Your task to perform on an android device: toggle notifications settings in the gmail app Image 0: 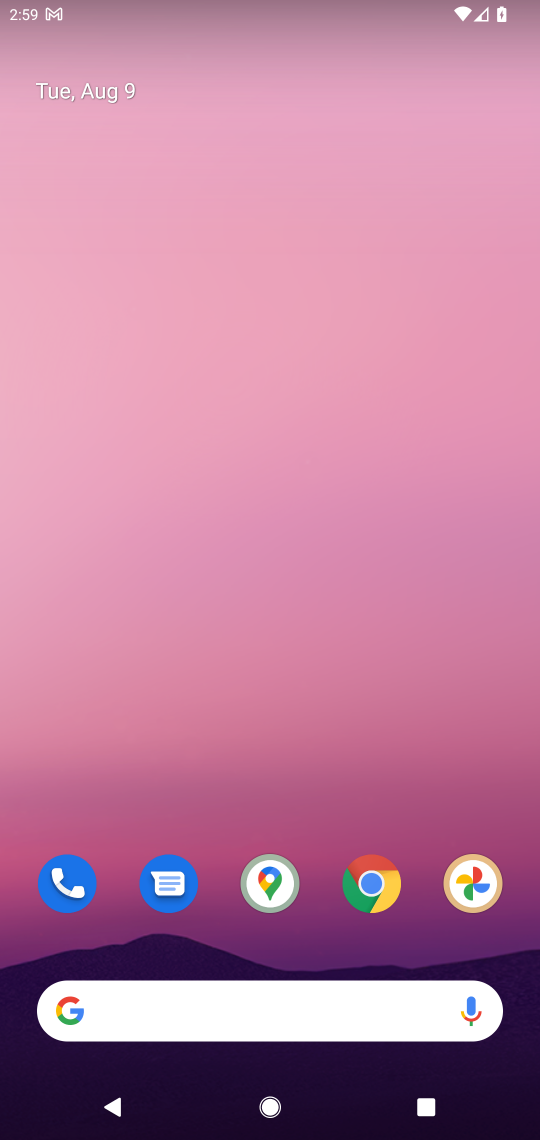
Step 0: drag from (427, 935) to (400, 247)
Your task to perform on an android device: toggle notifications settings in the gmail app Image 1: 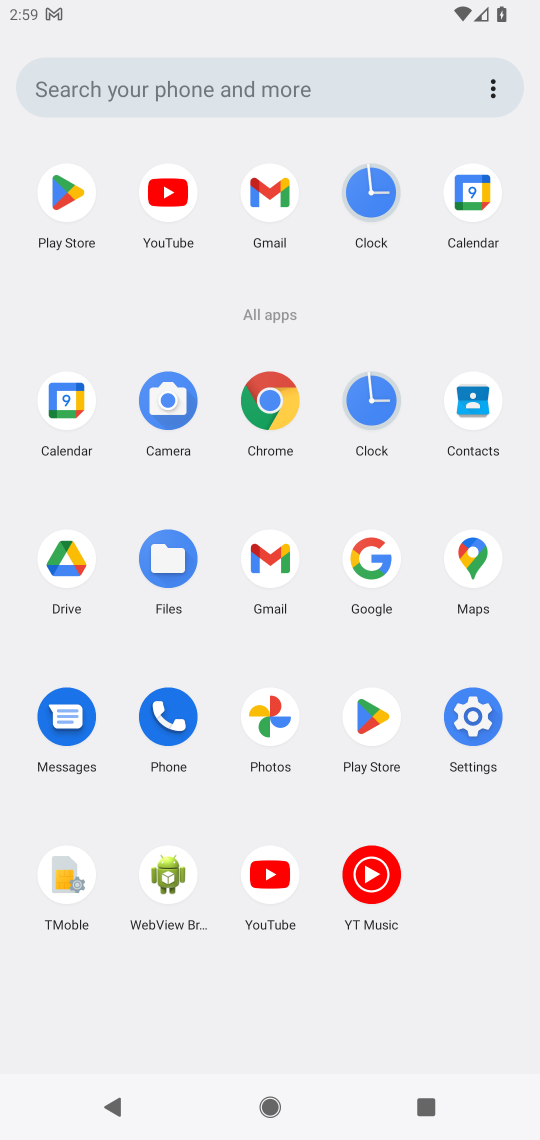
Step 1: click (266, 563)
Your task to perform on an android device: toggle notifications settings in the gmail app Image 2: 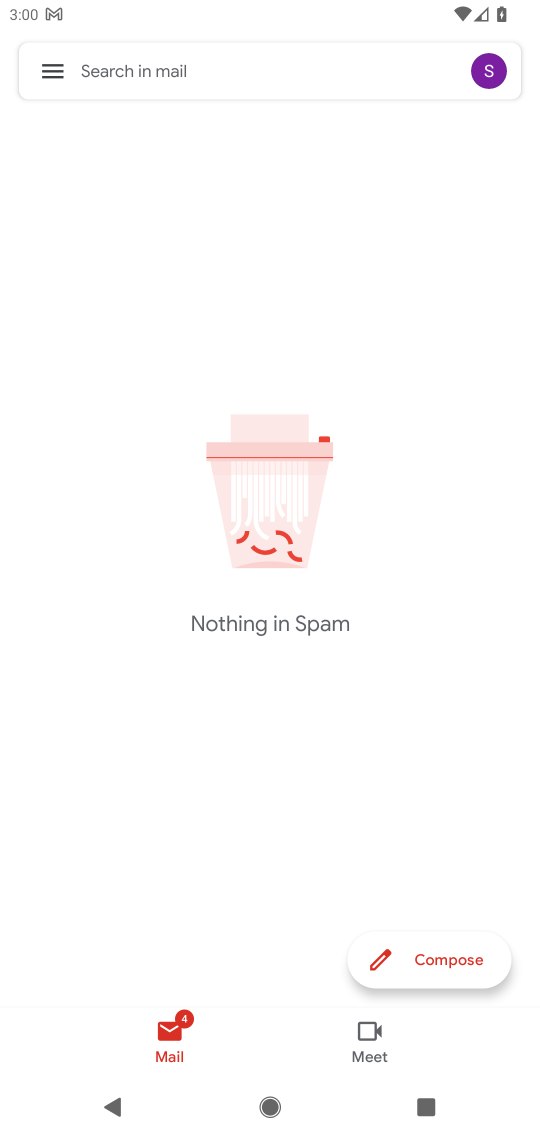
Step 2: click (48, 70)
Your task to perform on an android device: toggle notifications settings in the gmail app Image 3: 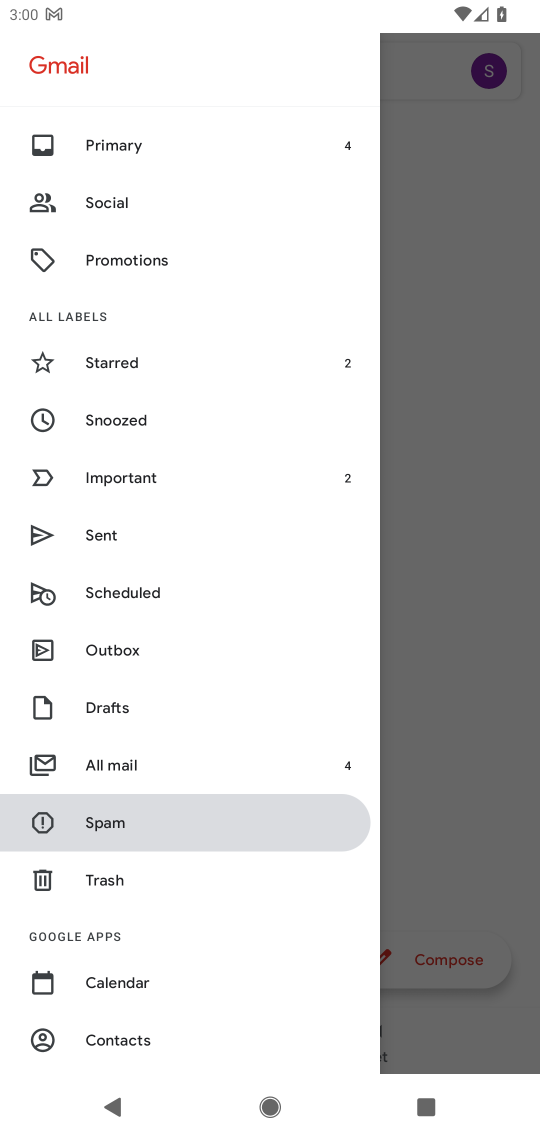
Step 3: drag from (204, 726) to (188, 493)
Your task to perform on an android device: toggle notifications settings in the gmail app Image 4: 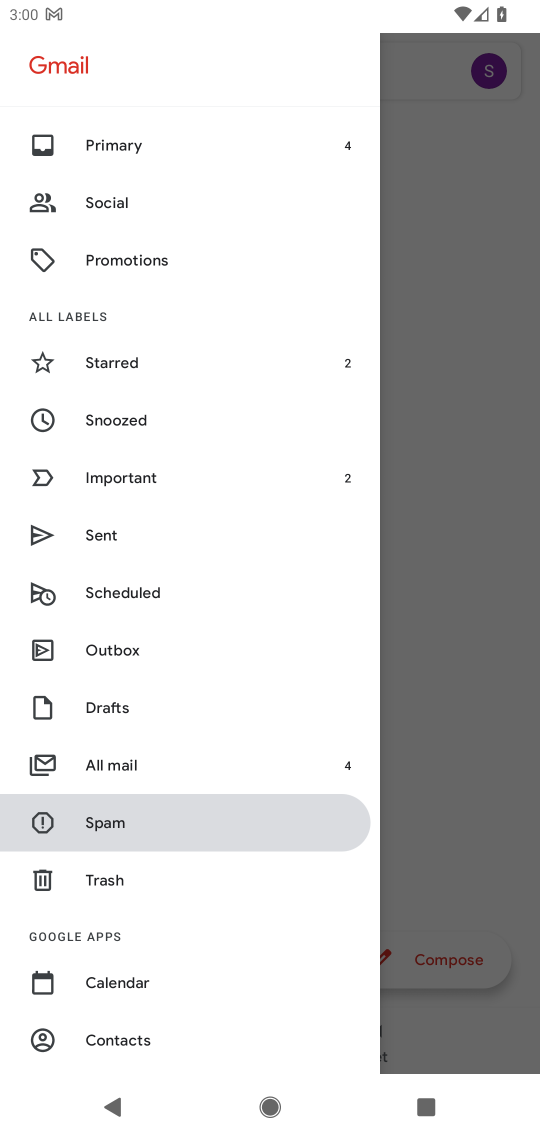
Step 4: drag from (200, 1009) to (234, 476)
Your task to perform on an android device: toggle notifications settings in the gmail app Image 5: 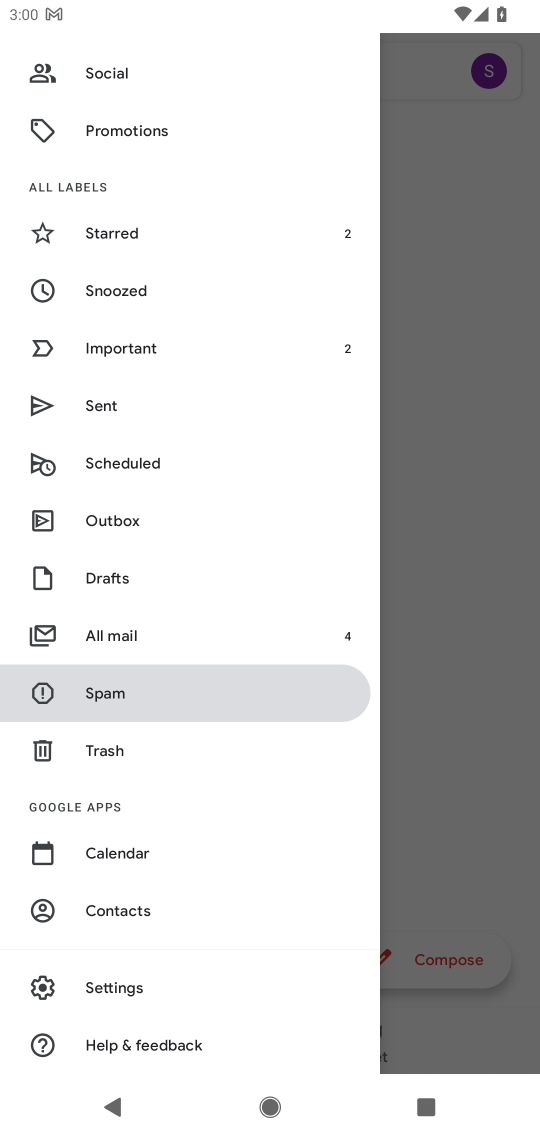
Step 5: click (75, 983)
Your task to perform on an android device: toggle notifications settings in the gmail app Image 6: 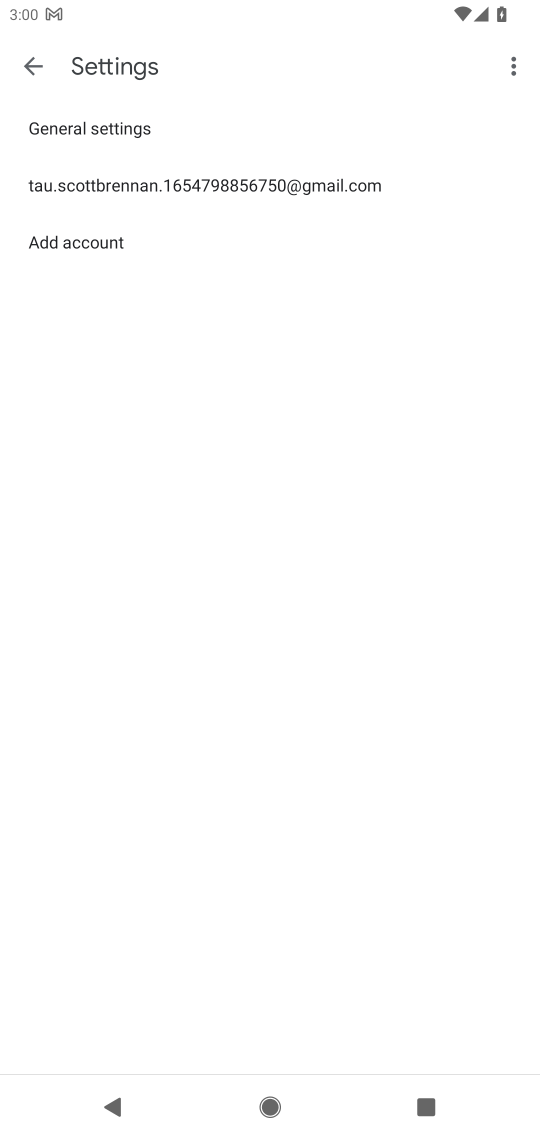
Step 6: click (215, 177)
Your task to perform on an android device: toggle notifications settings in the gmail app Image 7: 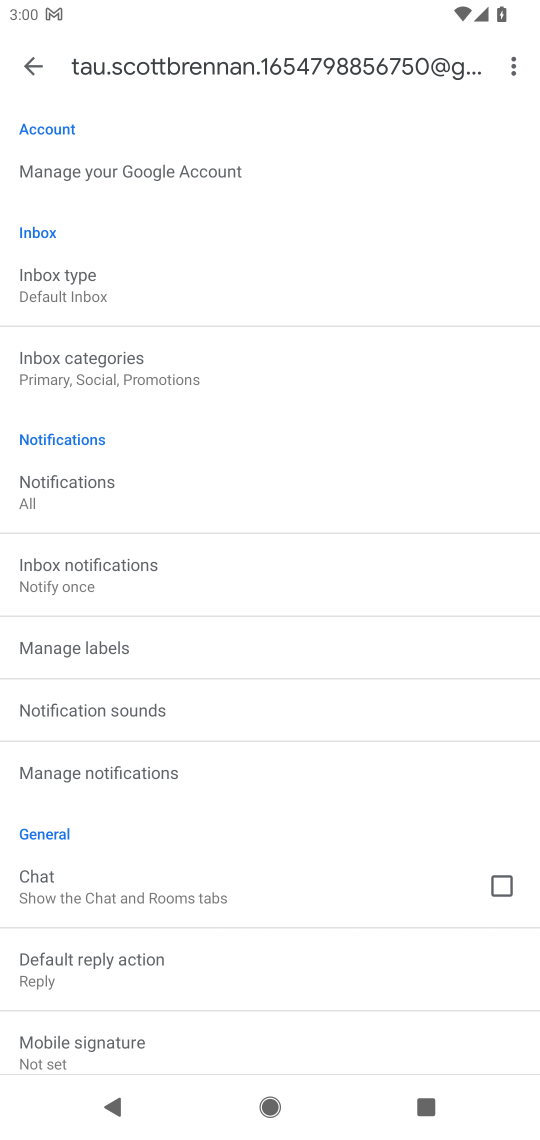
Step 7: click (110, 770)
Your task to perform on an android device: toggle notifications settings in the gmail app Image 8: 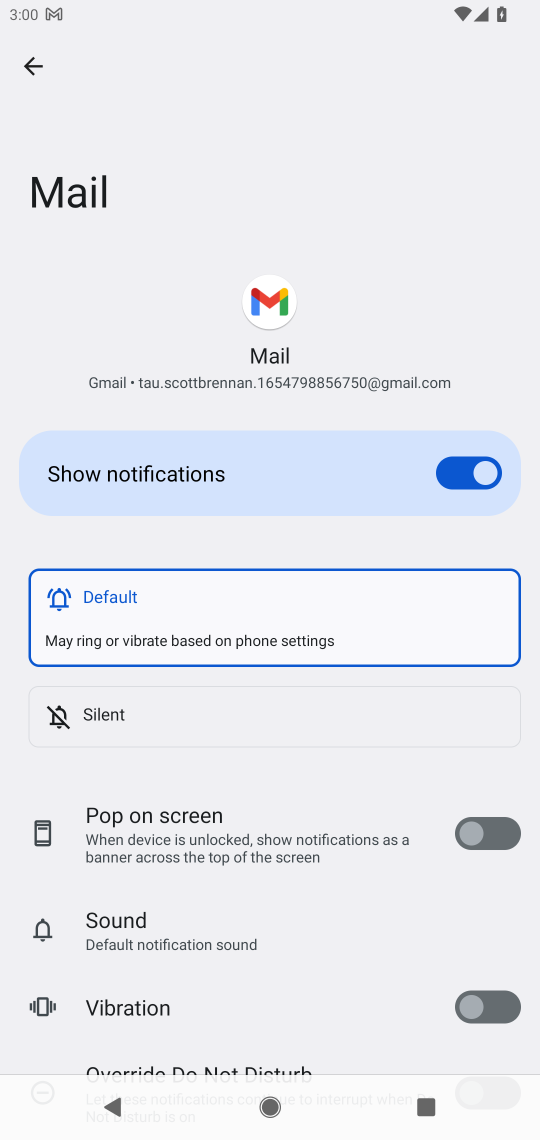
Step 8: click (464, 477)
Your task to perform on an android device: toggle notifications settings in the gmail app Image 9: 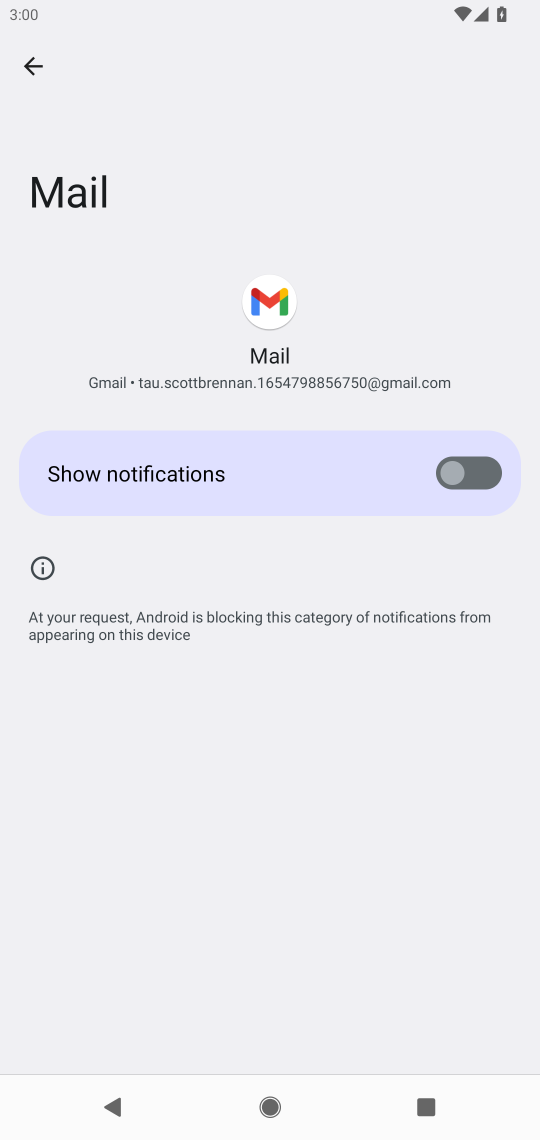
Step 9: task complete